Your task to perform on an android device: open a new tab in the chrome app Image 0: 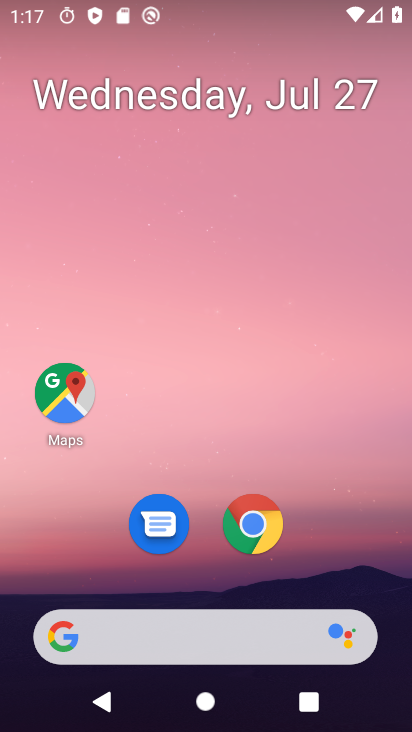
Step 0: click (256, 517)
Your task to perform on an android device: open a new tab in the chrome app Image 1: 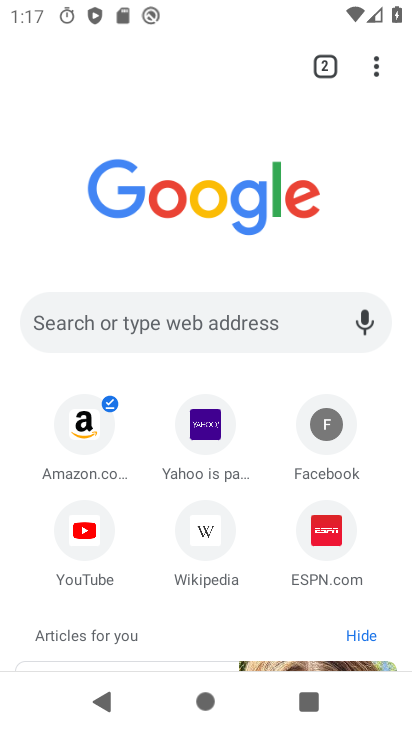
Step 1: click (375, 70)
Your task to perform on an android device: open a new tab in the chrome app Image 2: 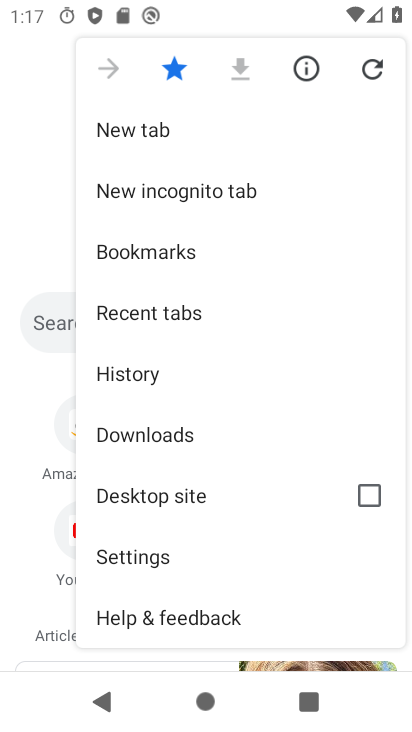
Step 2: click (254, 122)
Your task to perform on an android device: open a new tab in the chrome app Image 3: 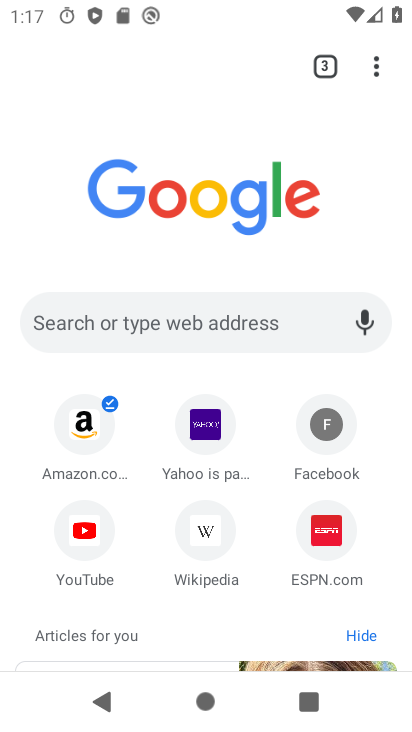
Step 3: task complete